Your task to perform on an android device: Install the eBay app Image 0: 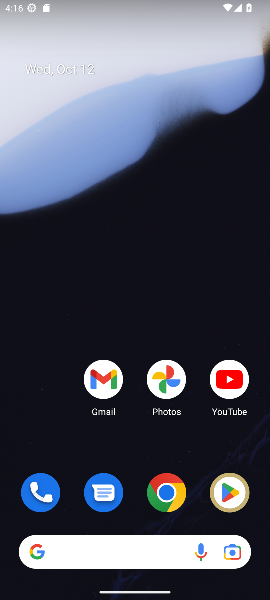
Step 0: click (234, 493)
Your task to perform on an android device: Install the eBay app Image 1: 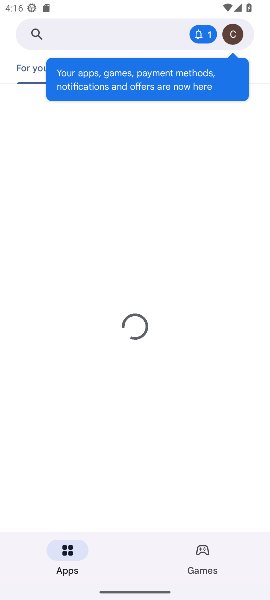
Step 1: click (53, 34)
Your task to perform on an android device: Install the eBay app Image 2: 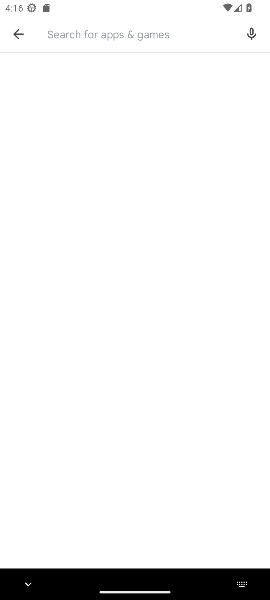
Step 2: type "ebay app"
Your task to perform on an android device: Install the eBay app Image 3: 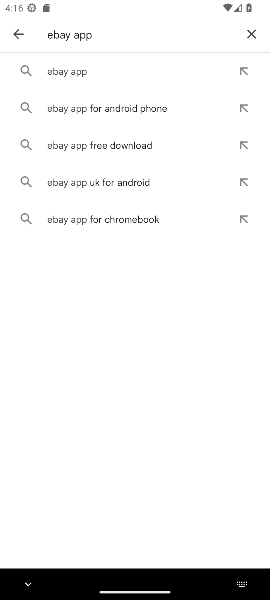
Step 3: click (74, 64)
Your task to perform on an android device: Install the eBay app Image 4: 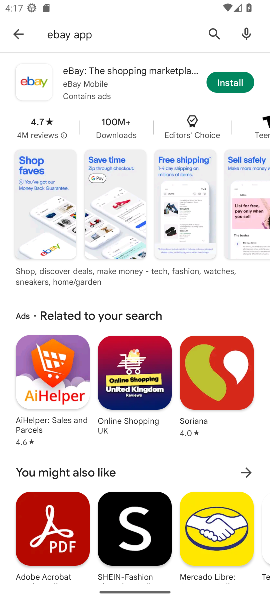
Step 4: click (226, 84)
Your task to perform on an android device: Install the eBay app Image 5: 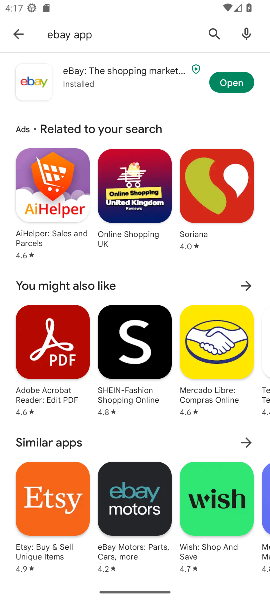
Step 5: task complete